Your task to perform on an android device: toggle javascript in the chrome app Image 0: 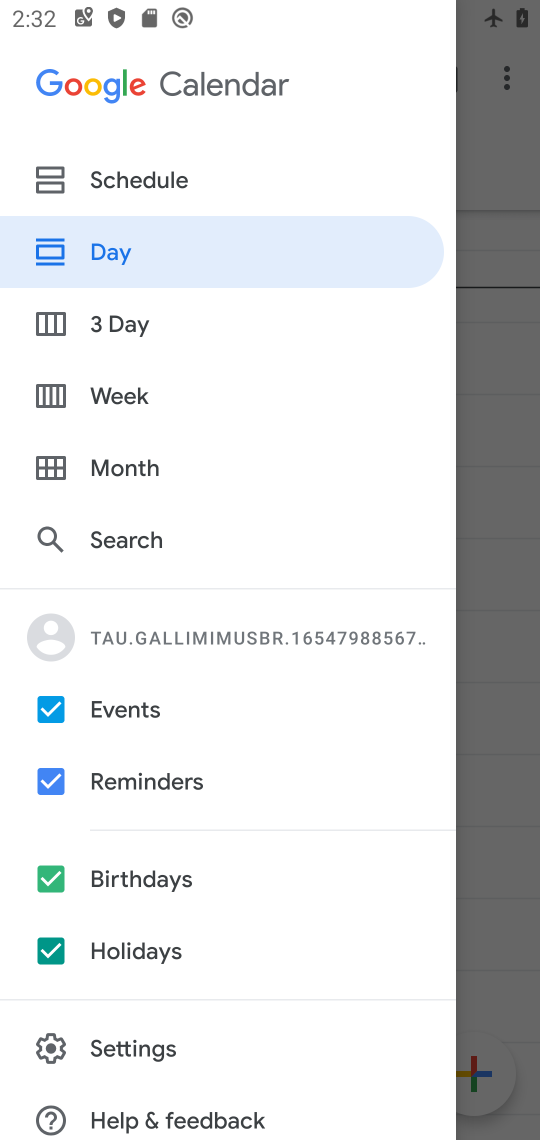
Step 0: press home button
Your task to perform on an android device: toggle javascript in the chrome app Image 1: 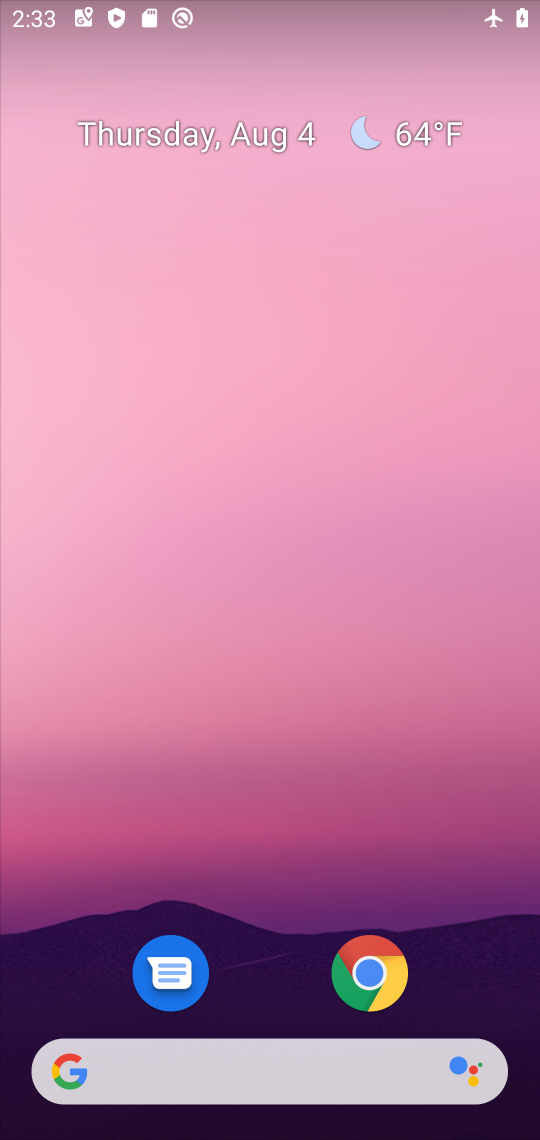
Step 1: drag from (284, 1019) to (400, 31)
Your task to perform on an android device: toggle javascript in the chrome app Image 2: 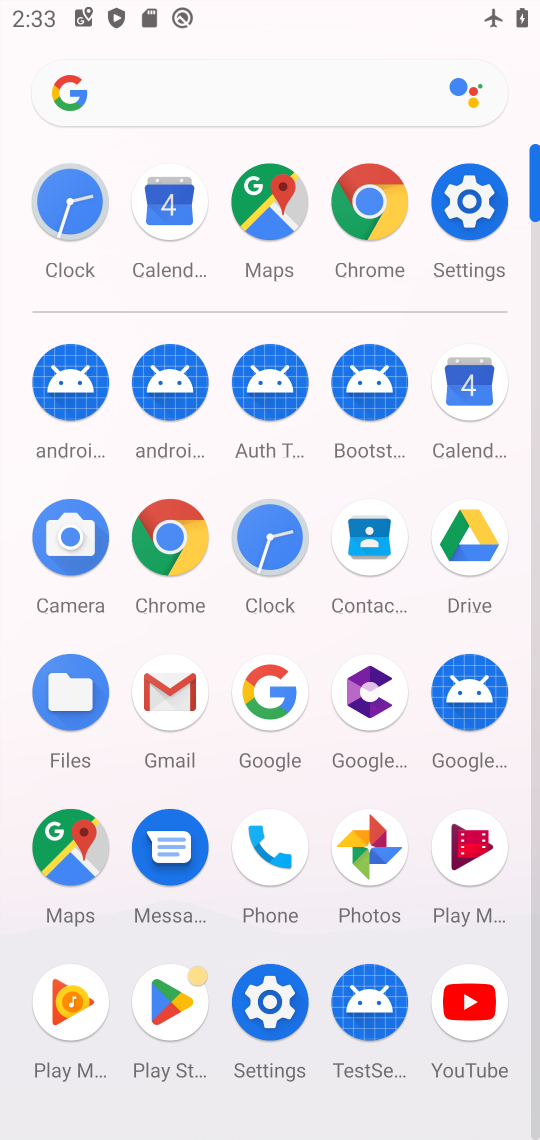
Step 2: click (161, 575)
Your task to perform on an android device: toggle javascript in the chrome app Image 3: 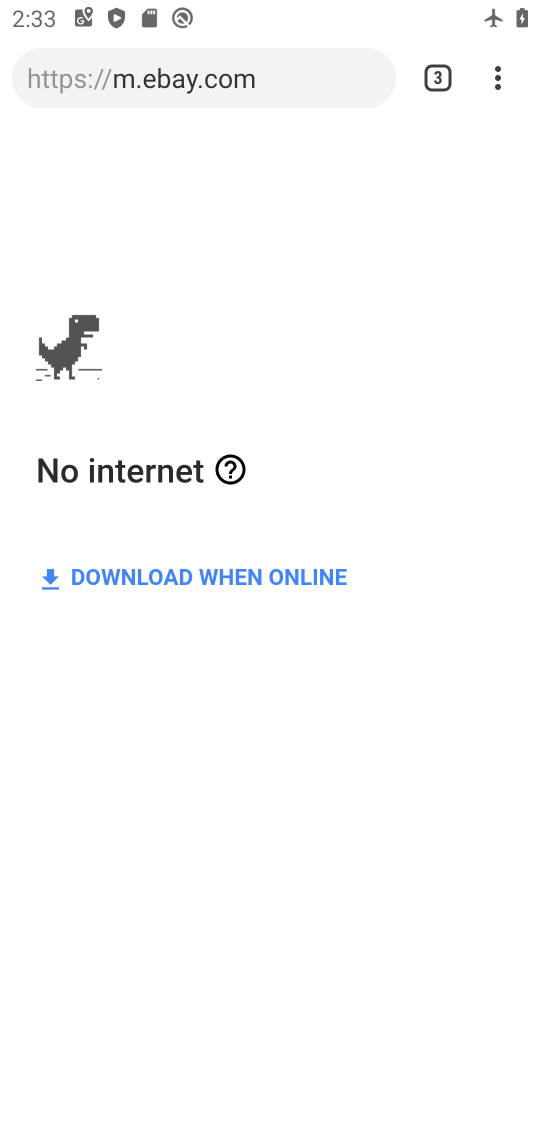
Step 3: click (499, 91)
Your task to perform on an android device: toggle javascript in the chrome app Image 4: 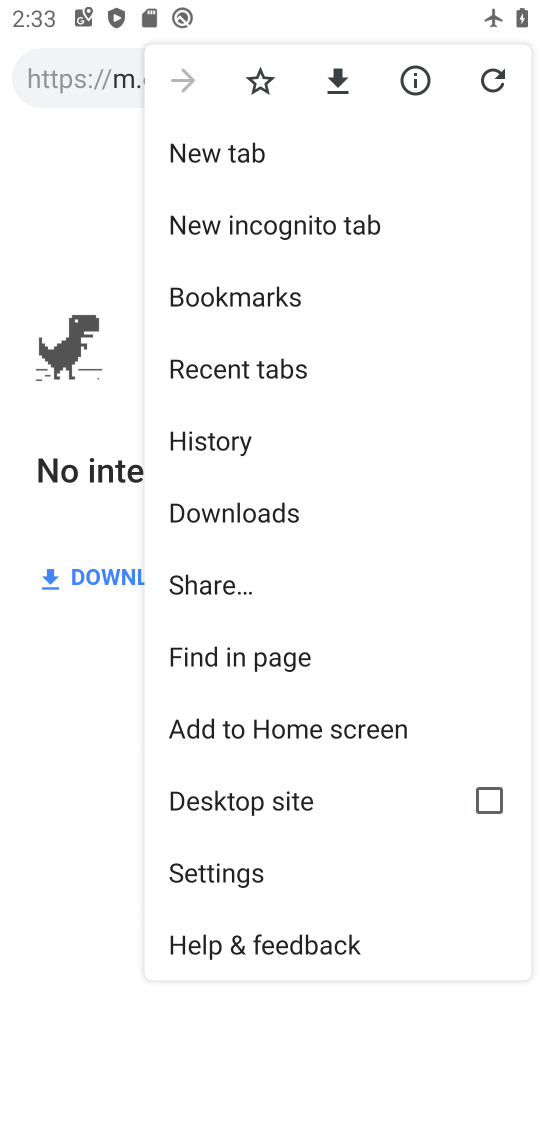
Step 4: click (261, 854)
Your task to perform on an android device: toggle javascript in the chrome app Image 5: 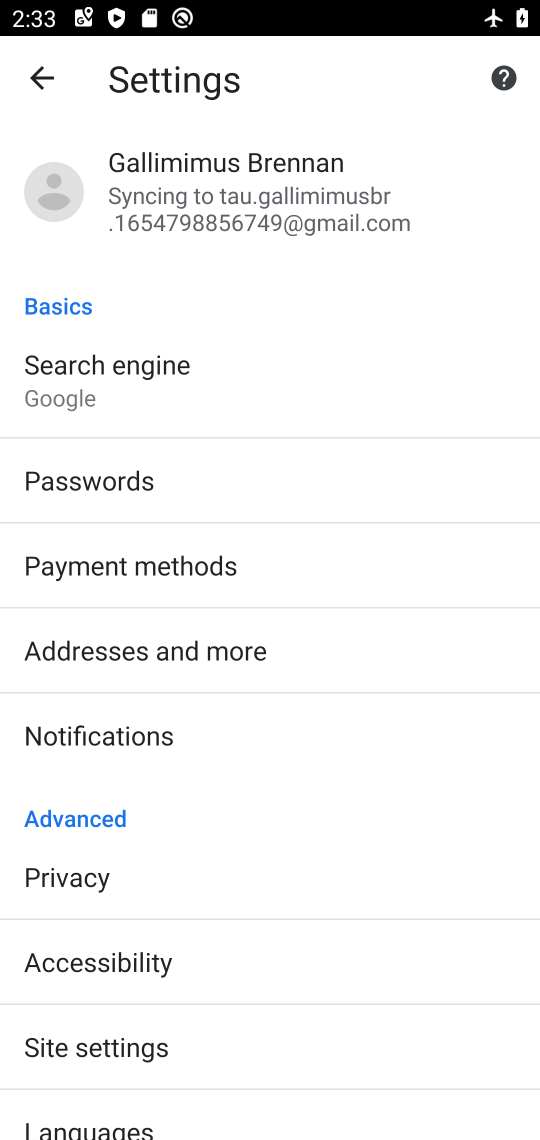
Step 5: click (144, 1056)
Your task to perform on an android device: toggle javascript in the chrome app Image 6: 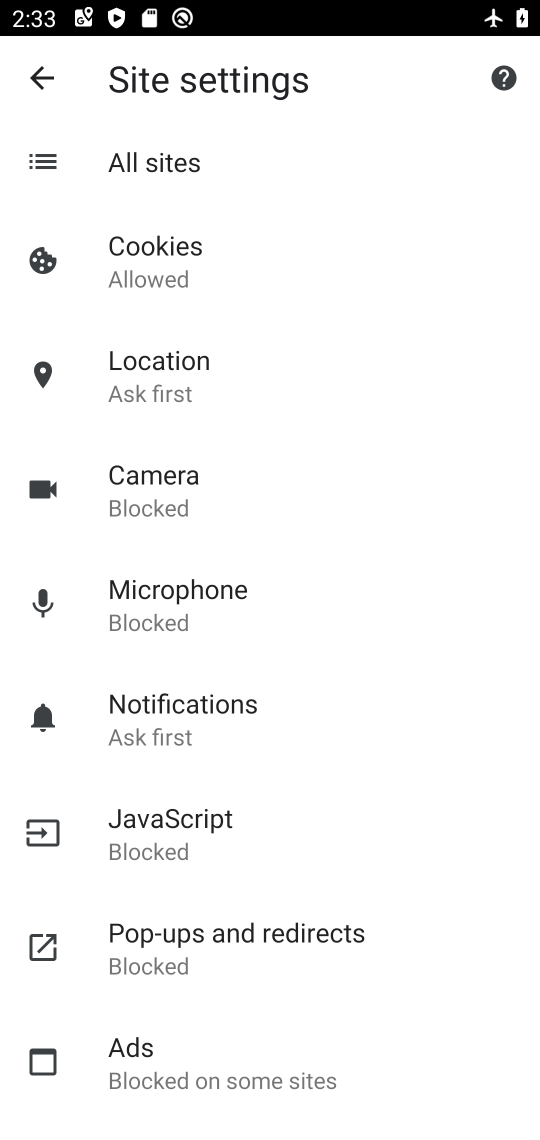
Step 6: click (194, 851)
Your task to perform on an android device: toggle javascript in the chrome app Image 7: 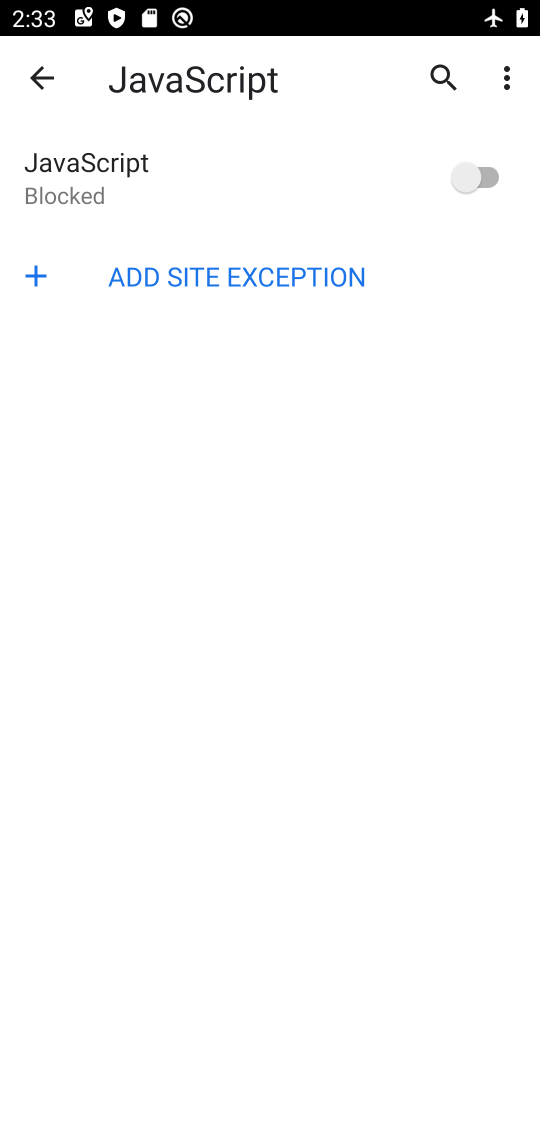
Step 7: click (460, 176)
Your task to perform on an android device: toggle javascript in the chrome app Image 8: 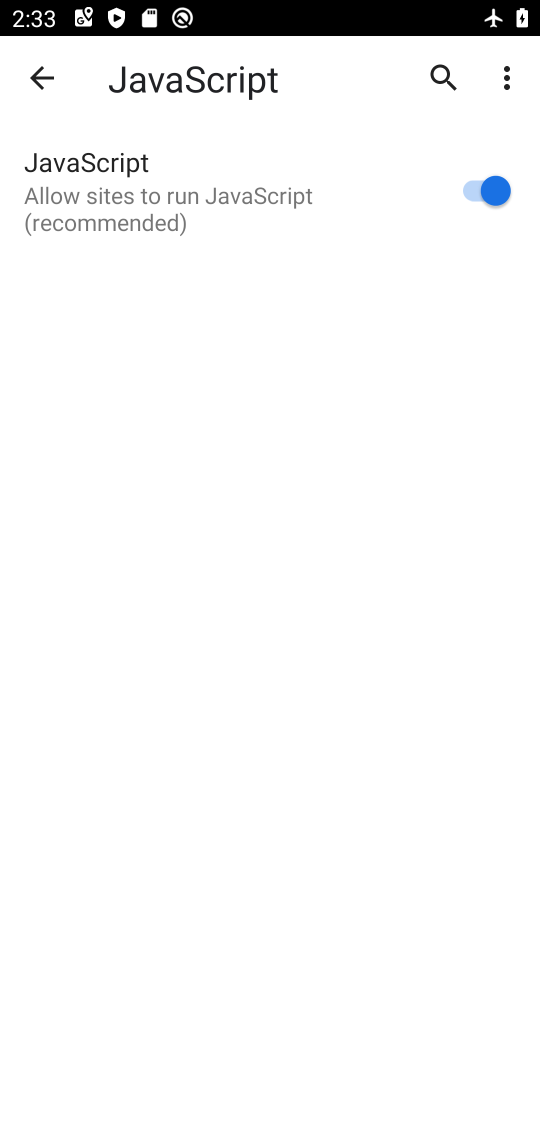
Step 8: task complete